Your task to perform on an android device: Is it going to rain tomorrow? Image 0: 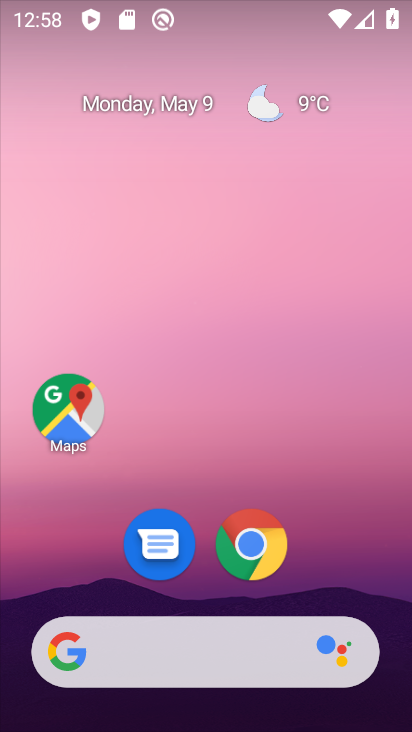
Step 0: drag from (335, 588) to (273, 45)
Your task to perform on an android device: Is it going to rain tomorrow? Image 1: 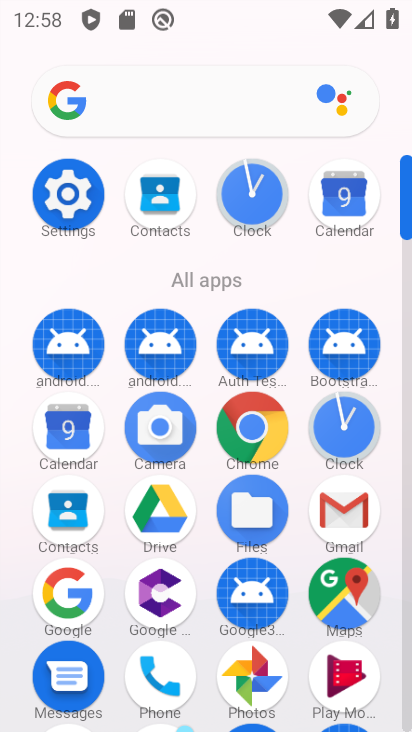
Step 1: drag from (151, 150) to (195, 731)
Your task to perform on an android device: Is it going to rain tomorrow? Image 2: 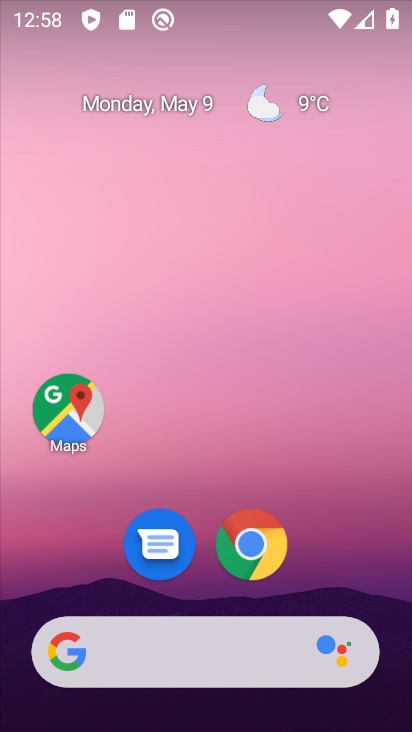
Step 2: click (297, 104)
Your task to perform on an android device: Is it going to rain tomorrow? Image 3: 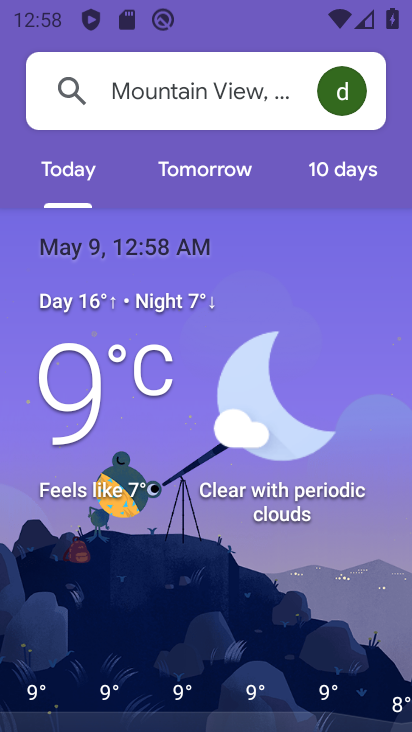
Step 3: click (199, 180)
Your task to perform on an android device: Is it going to rain tomorrow? Image 4: 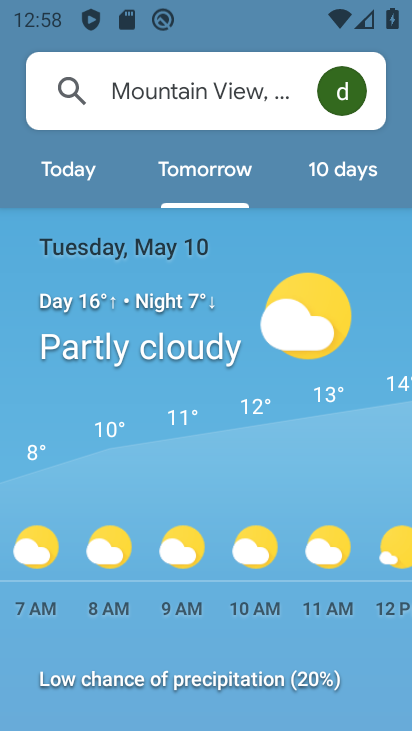
Step 4: task complete